Your task to perform on an android device: find photos in the google photos app Image 0: 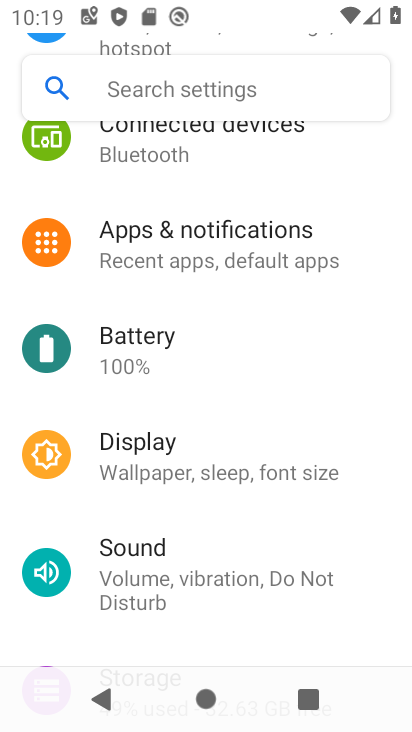
Step 0: press home button
Your task to perform on an android device: find photos in the google photos app Image 1: 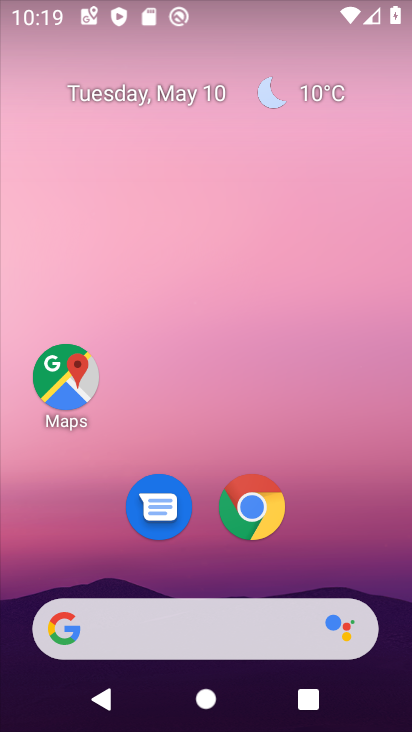
Step 1: drag from (360, 536) to (362, 109)
Your task to perform on an android device: find photos in the google photos app Image 2: 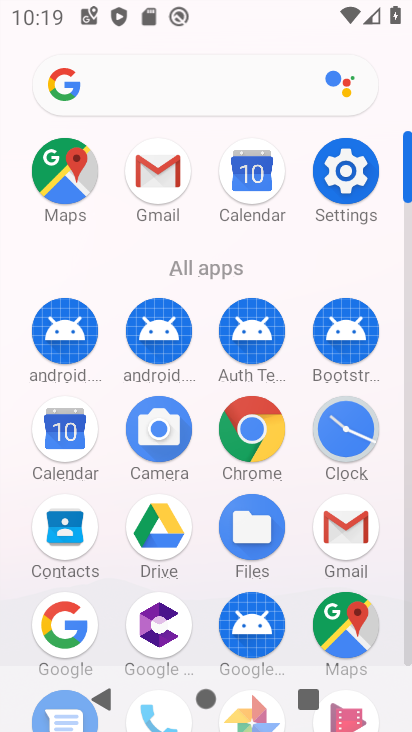
Step 2: drag from (301, 591) to (313, 310)
Your task to perform on an android device: find photos in the google photos app Image 3: 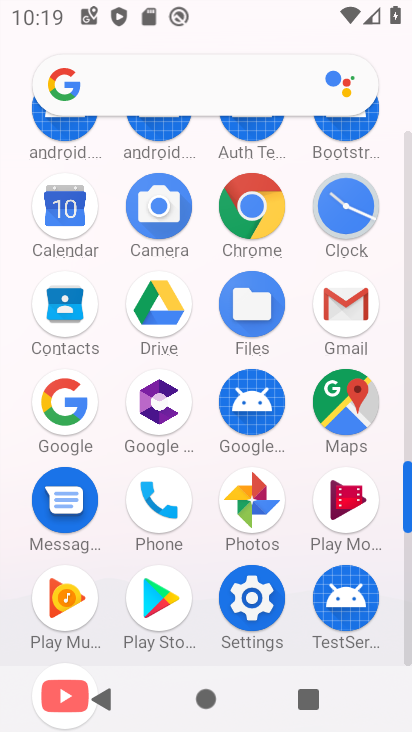
Step 3: click (253, 511)
Your task to perform on an android device: find photos in the google photos app Image 4: 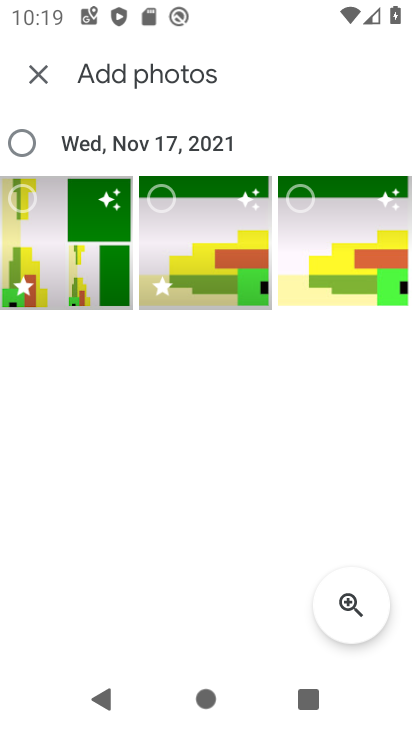
Step 4: click (36, 68)
Your task to perform on an android device: find photos in the google photos app Image 5: 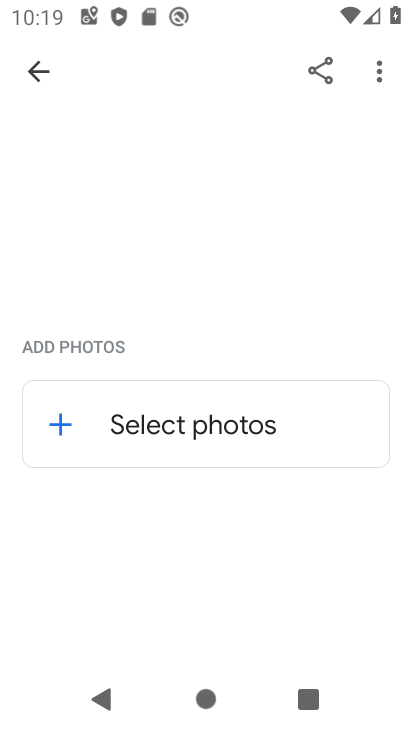
Step 5: task complete